Your task to perform on an android device: check out phone information Image 0: 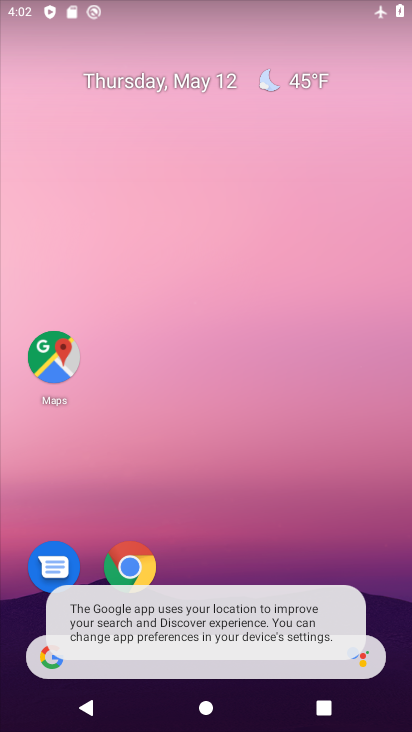
Step 0: click (65, 377)
Your task to perform on an android device: check out phone information Image 1: 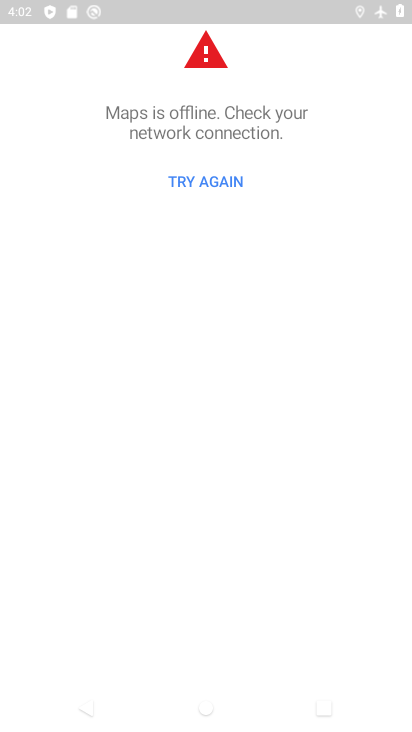
Step 1: press home button
Your task to perform on an android device: check out phone information Image 2: 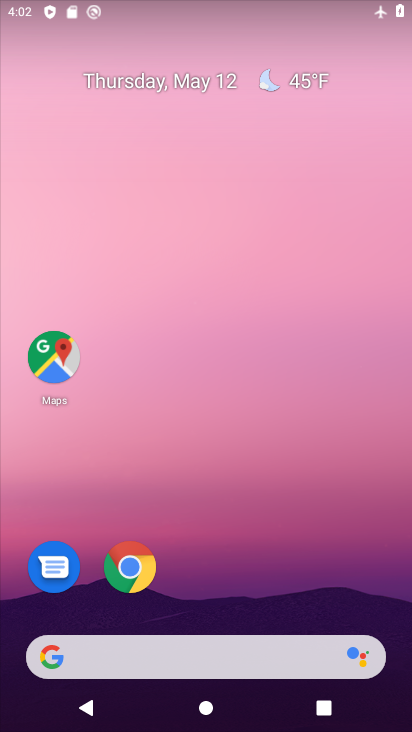
Step 2: drag from (256, 544) to (196, 104)
Your task to perform on an android device: check out phone information Image 3: 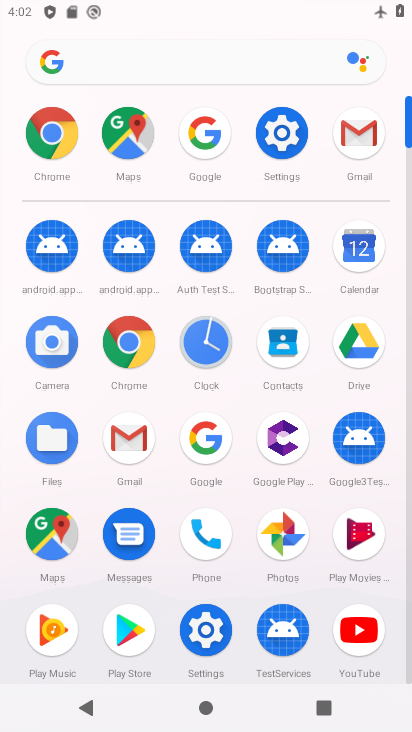
Step 3: click (261, 117)
Your task to perform on an android device: check out phone information Image 4: 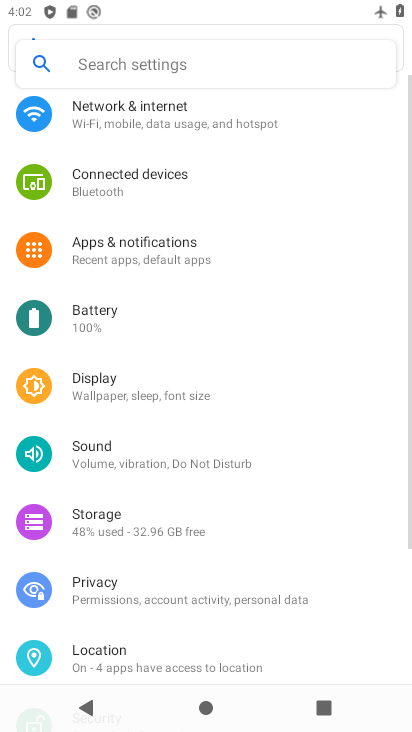
Step 4: drag from (225, 618) to (228, 164)
Your task to perform on an android device: check out phone information Image 5: 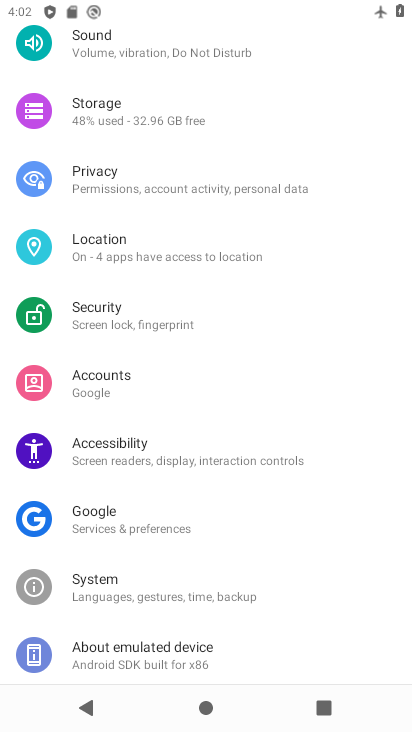
Step 5: click (167, 653)
Your task to perform on an android device: check out phone information Image 6: 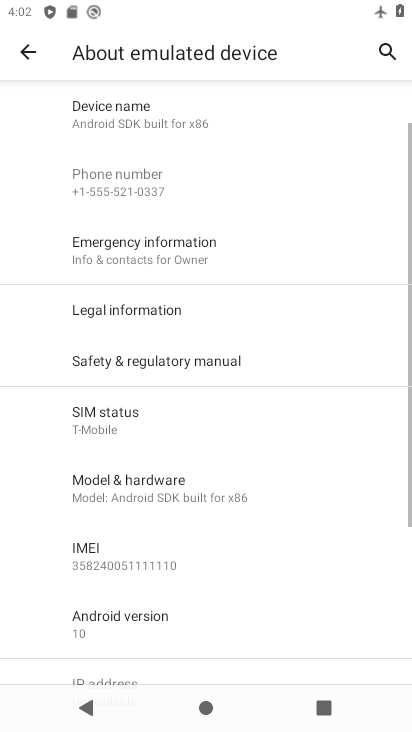
Step 6: task complete